Your task to perform on an android device: Open CNN.com Image 0: 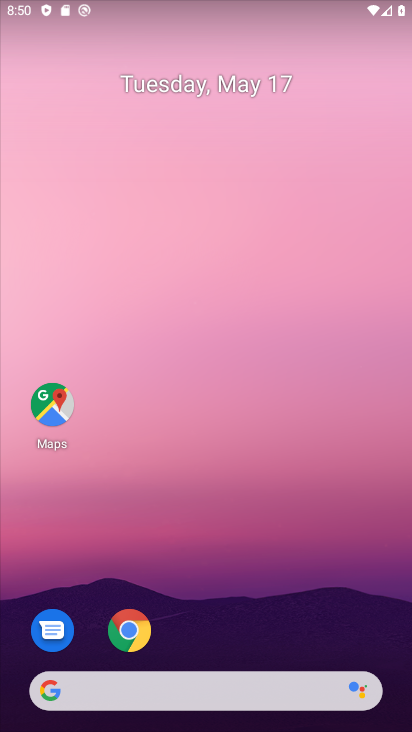
Step 0: drag from (338, 623) to (372, 94)
Your task to perform on an android device: Open CNN.com Image 1: 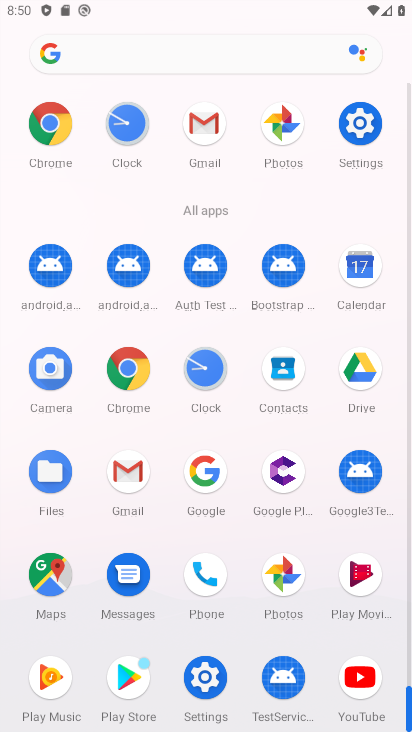
Step 1: click (112, 383)
Your task to perform on an android device: Open CNN.com Image 2: 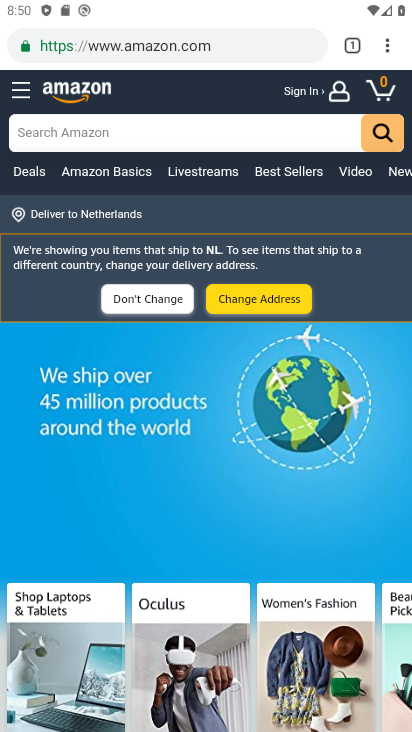
Step 2: click (184, 38)
Your task to perform on an android device: Open CNN.com Image 3: 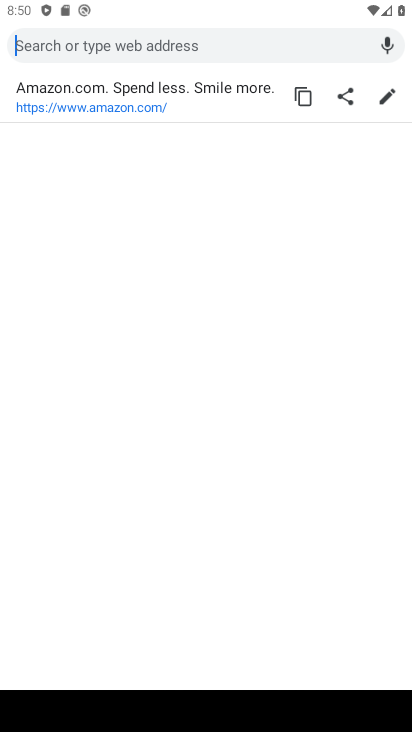
Step 3: type "cnn.com"
Your task to perform on an android device: Open CNN.com Image 4: 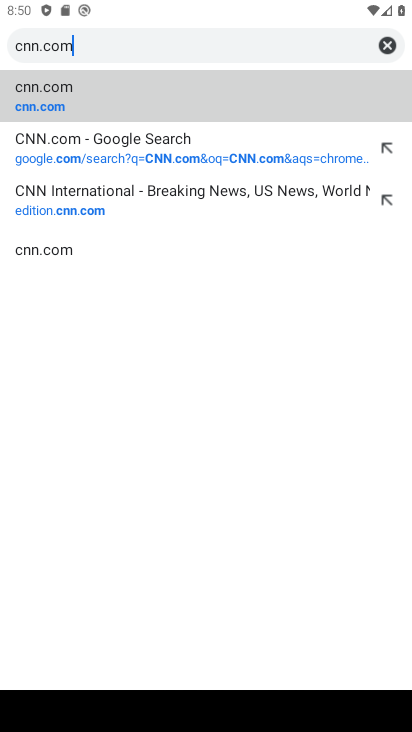
Step 4: click (173, 97)
Your task to perform on an android device: Open CNN.com Image 5: 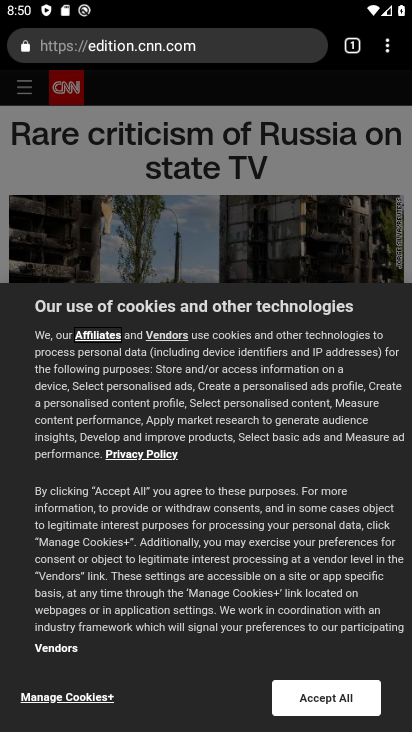
Step 5: task complete